Your task to perform on an android device: open app "Facebook" (install if not already installed), go to login, and select forgot password Image 0: 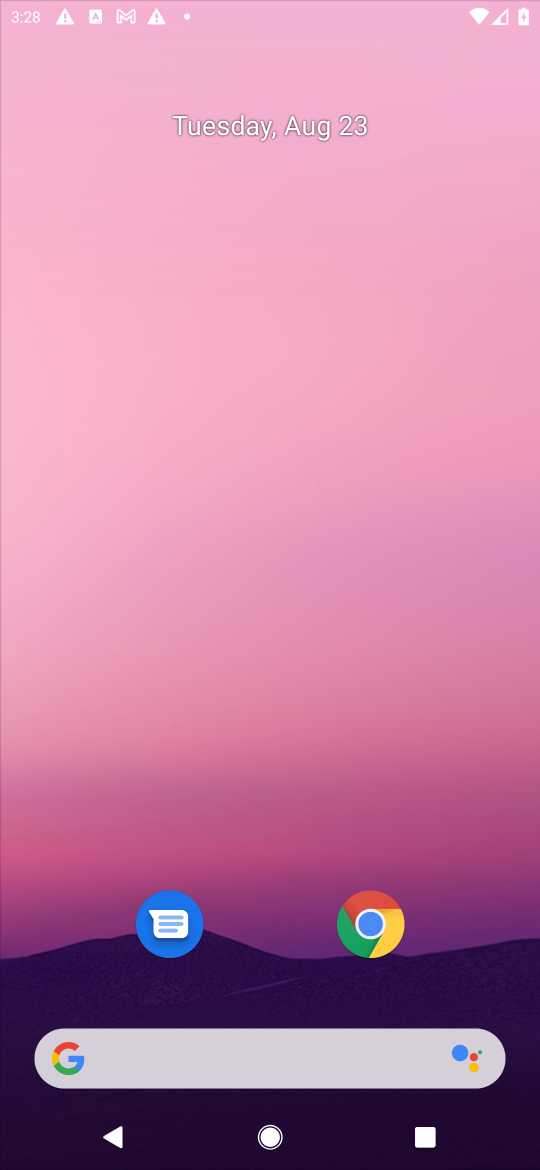
Step 0: press home button
Your task to perform on an android device: open app "Facebook" (install if not already installed), go to login, and select forgot password Image 1: 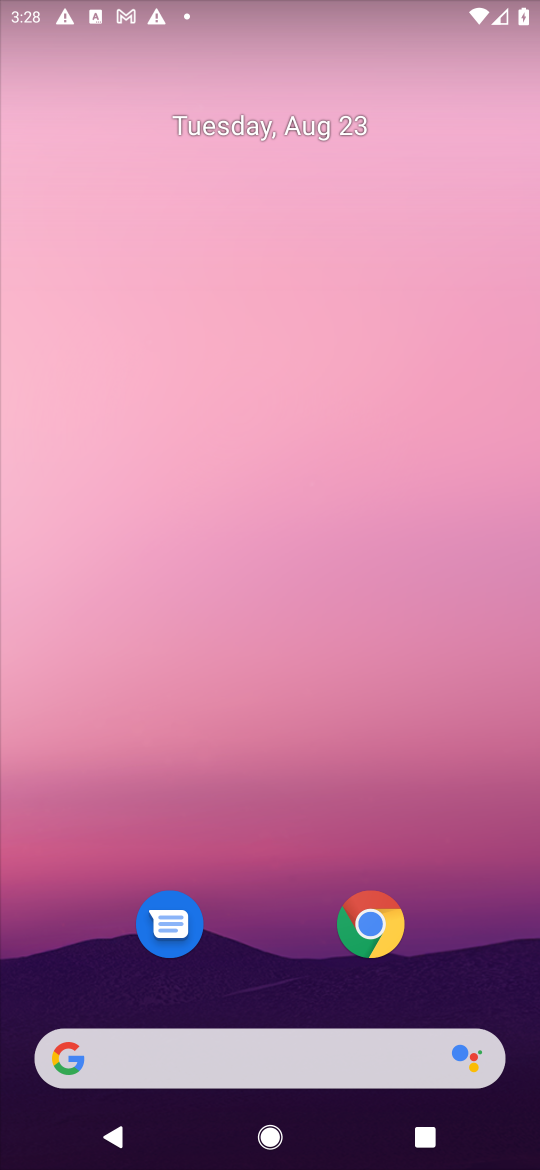
Step 1: drag from (452, 976) to (474, 137)
Your task to perform on an android device: open app "Facebook" (install if not already installed), go to login, and select forgot password Image 2: 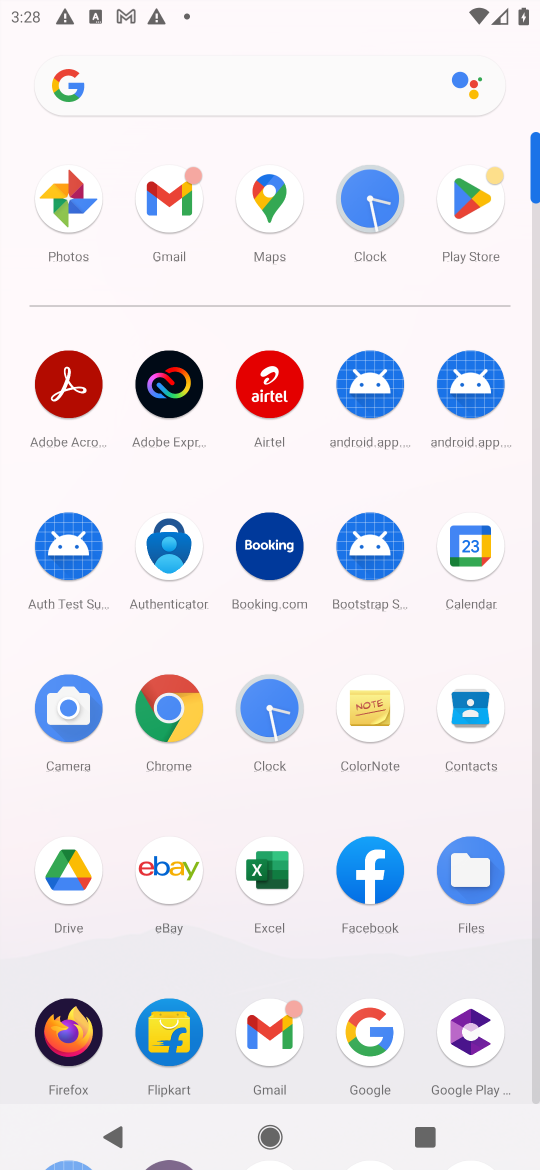
Step 2: click (471, 200)
Your task to perform on an android device: open app "Facebook" (install if not already installed), go to login, and select forgot password Image 3: 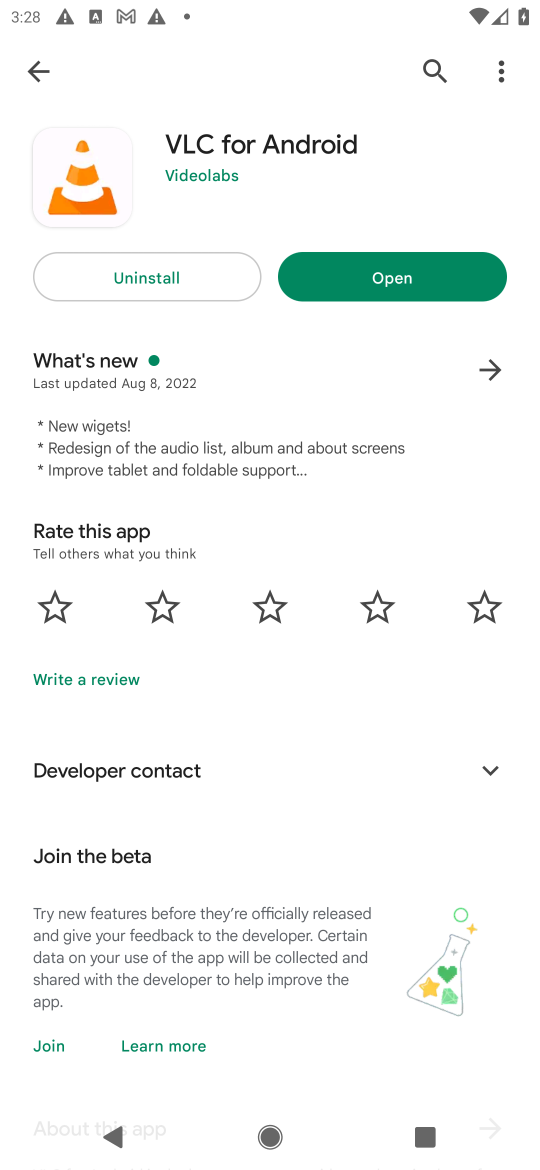
Step 3: press back button
Your task to perform on an android device: open app "Facebook" (install if not already installed), go to login, and select forgot password Image 4: 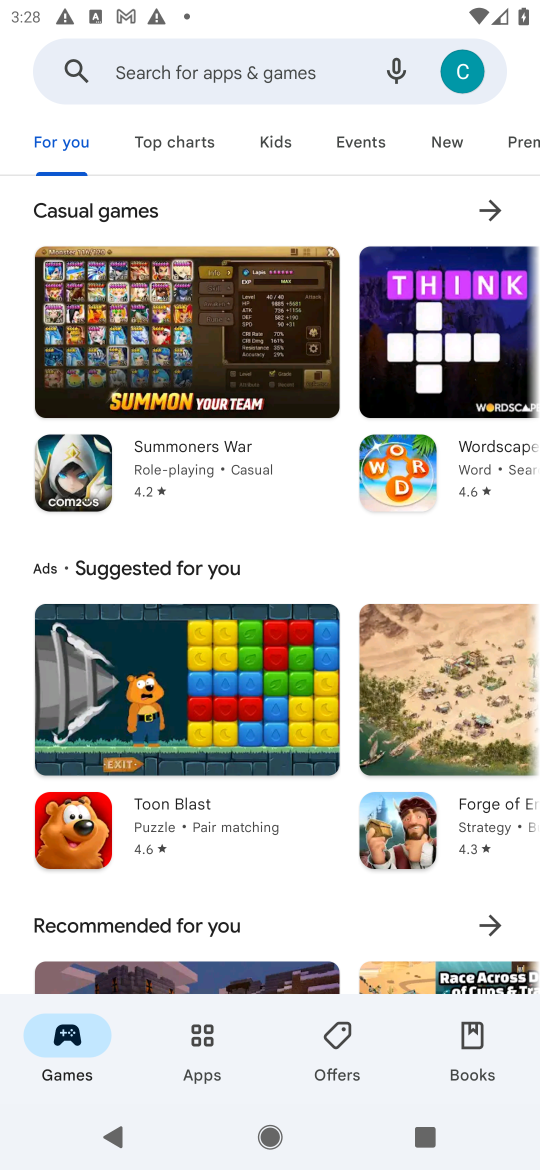
Step 4: click (284, 69)
Your task to perform on an android device: open app "Facebook" (install if not already installed), go to login, and select forgot password Image 5: 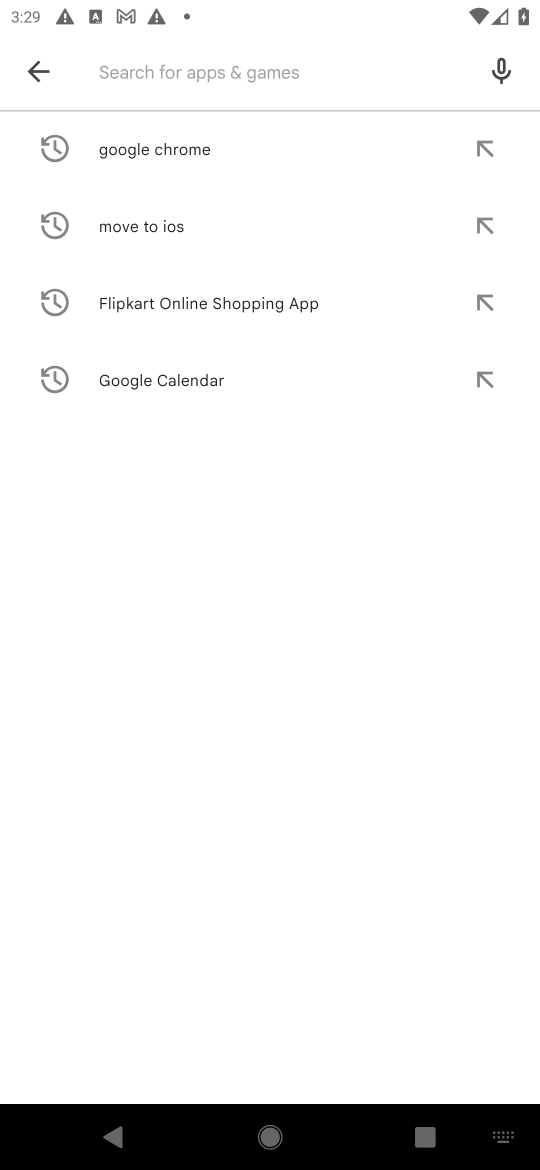
Step 5: press enter
Your task to perform on an android device: open app "Facebook" (install if not already installed), go to login, and select forgot password Image 6: 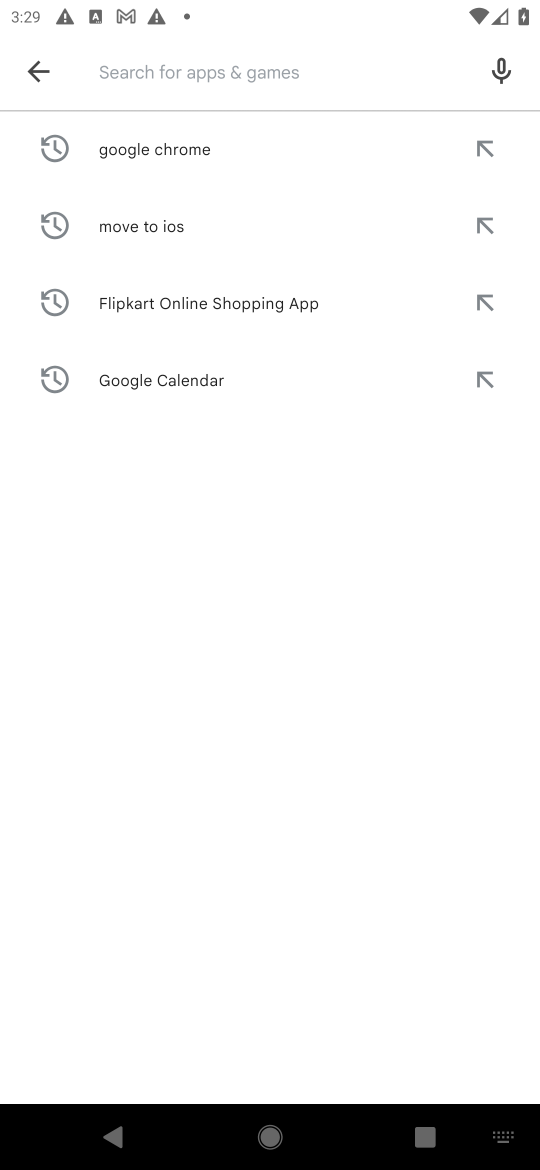
Step 6: type "facebook"
Your task to perform on an android device: open app "Facebook" (install if not already installed), go to login, and select forgot password Image 7: 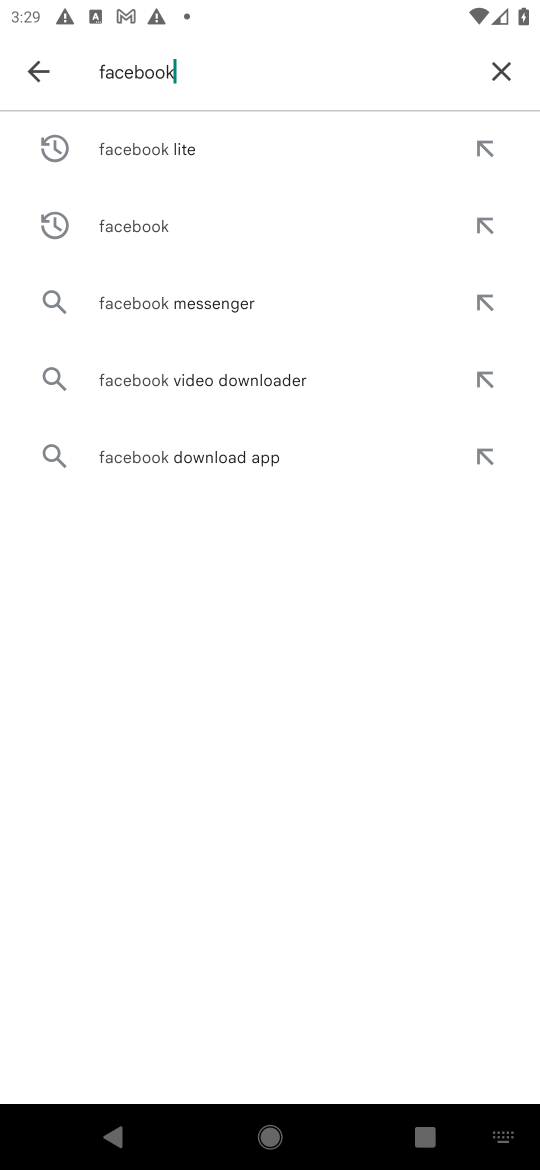
Step 7: click (164, 231)
Your task to perform on an android device: open app "Facebook" (install if not already installed), go to login, and select forgot password Image 8: 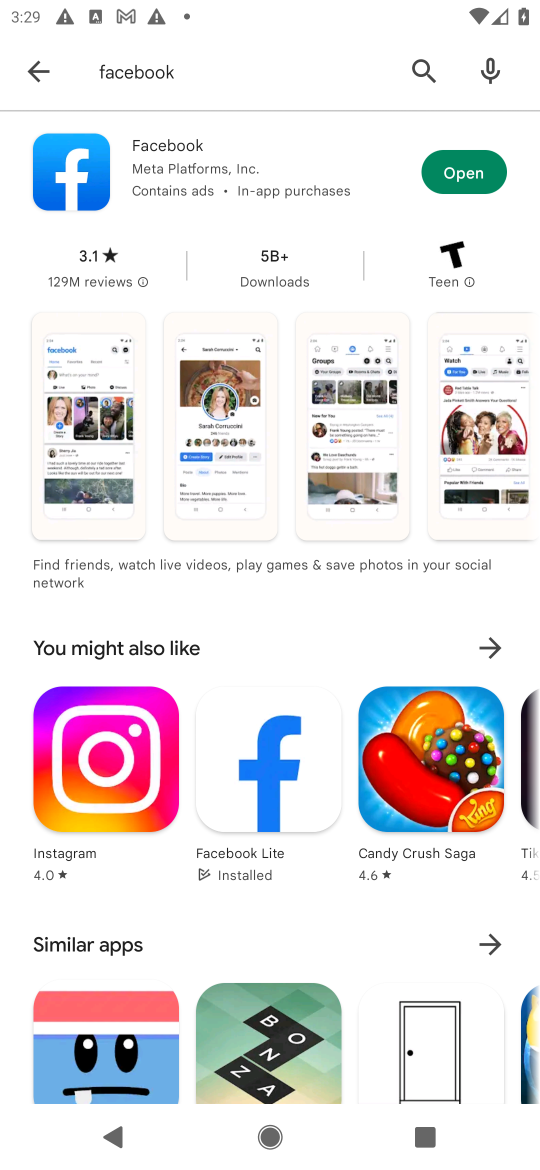
Step 8: click (462, 178)
Your task to perform on an android device: open app "Facebook" (install if not already installed), go to login, and select forgot password Image 9: 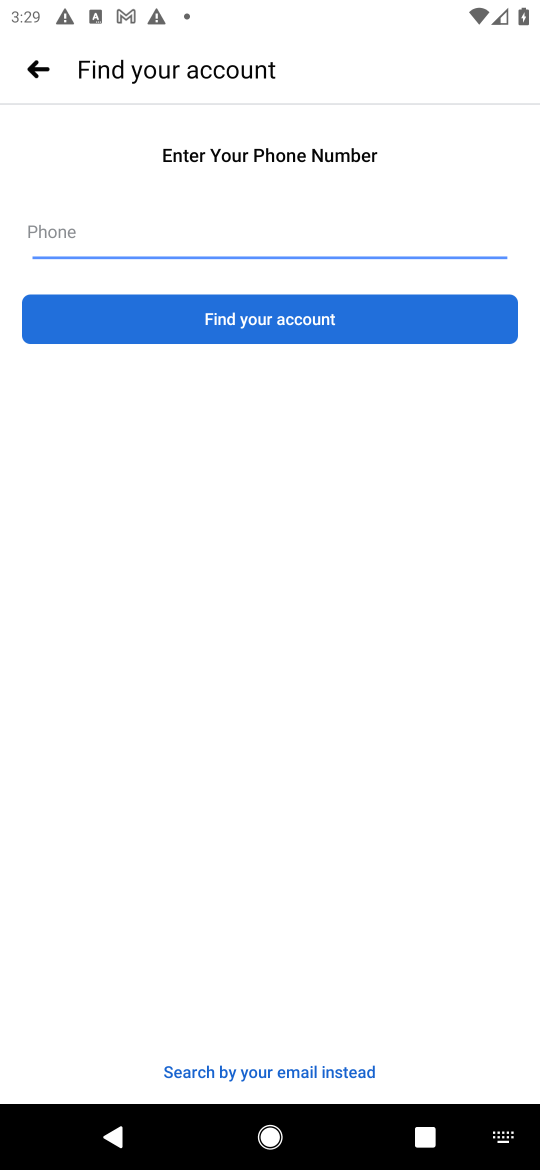
Step 9: press back button
Your task to perform on an android device: open app "Facebook" (install if not already installed), go to login, and select forgot password Image 10: 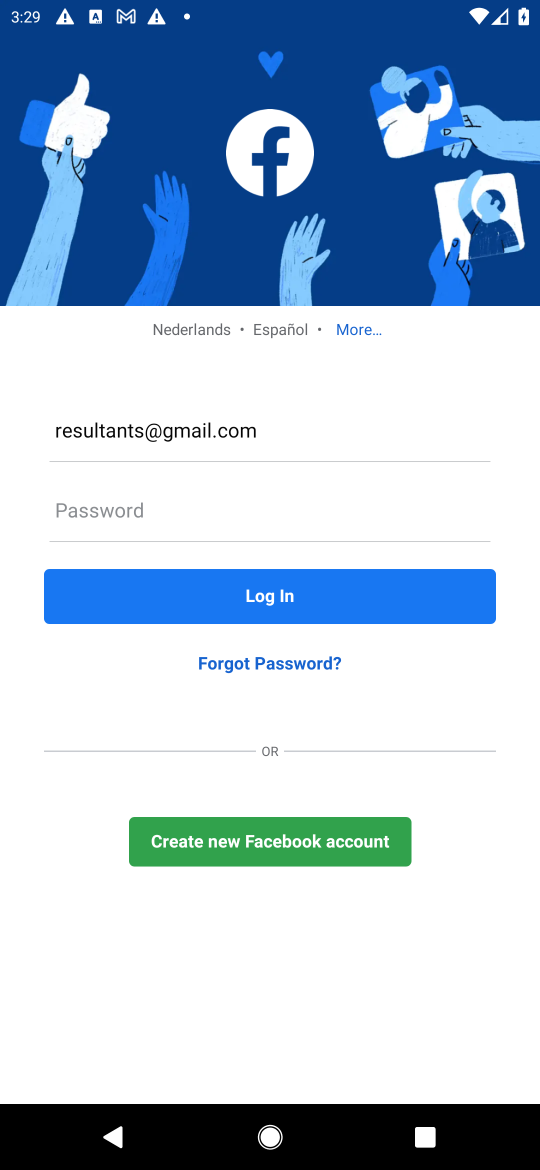
Step 10: click (259, 661)
Your task to perform on an android device: open app "Facebook" (install if not already installed), go to login, and select forgot password Image 11: 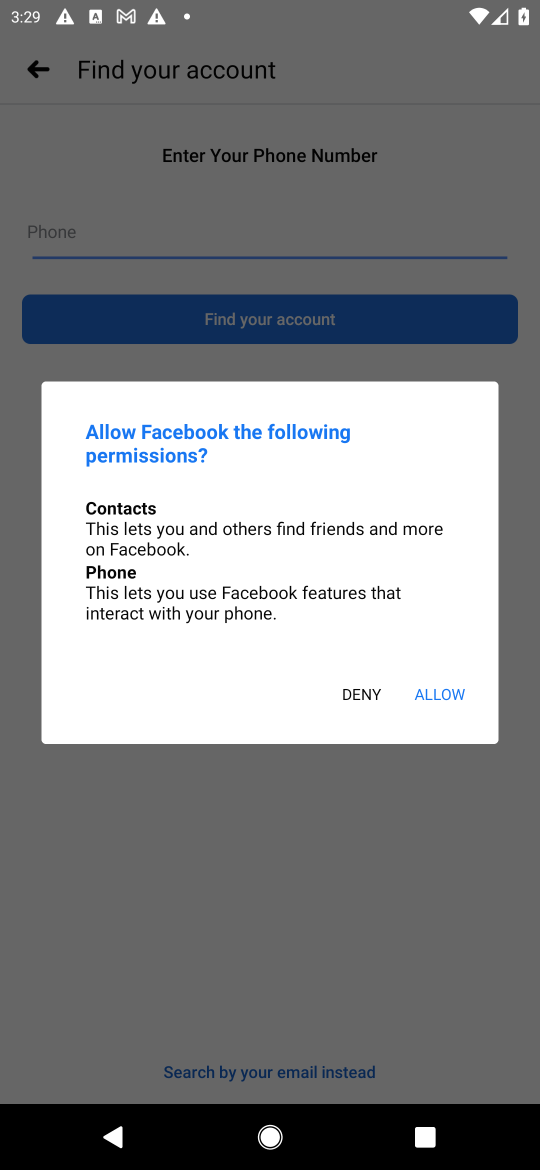
Step 11: task complete